Your task to perform on an android device: turn on the 12-hour format for clock Image 0: 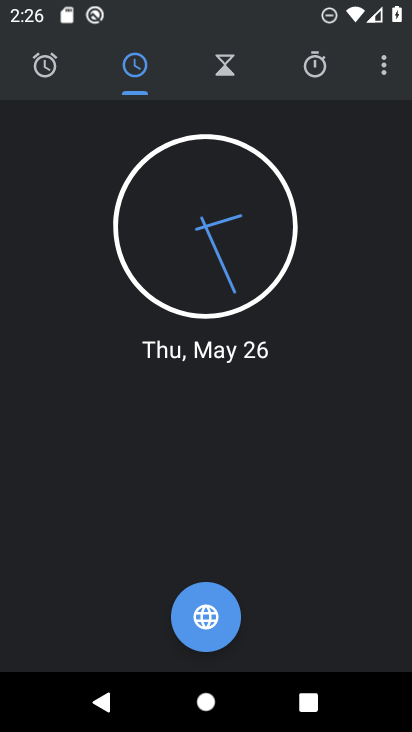
Step 0: click (385, 63)
Your task to perform on an android device: turn on the 12-hour format for clock Image 1: 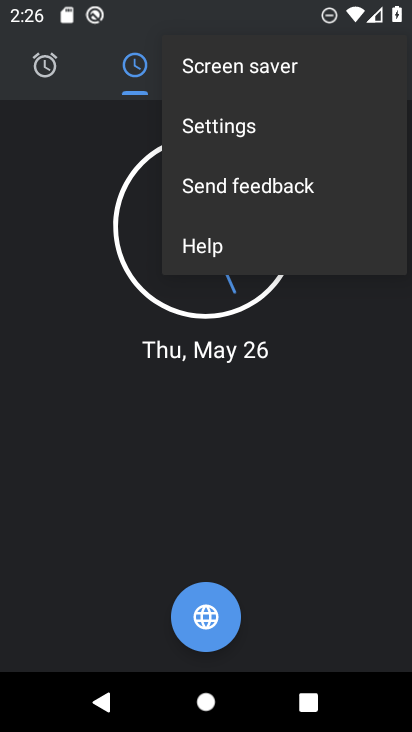
Step 1: click (257, 123)
Your task to perform on an android device: turn on the 12-hour format for clock Image 2: 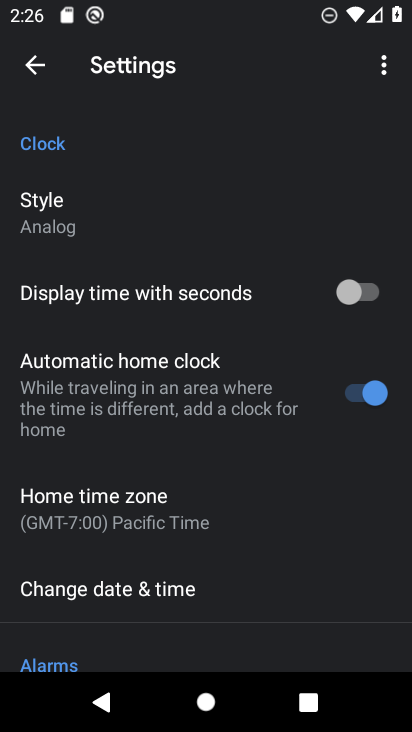
Step 2: click (100, 600)
Your task to perform on an android device: turn on the 12-hour format for clock Image 3: 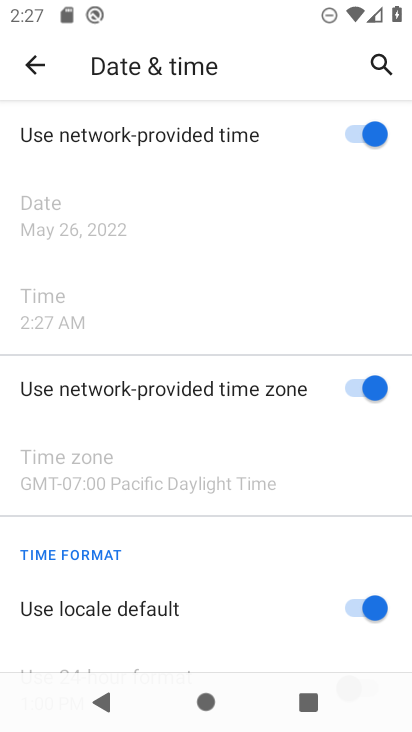
Step 3: task complete